Your task to perform on an android device: Clear the shopping cart on costco.com. Search for logitech g903 on costco.com, select the first entry, and add it to the cart. Image 0: 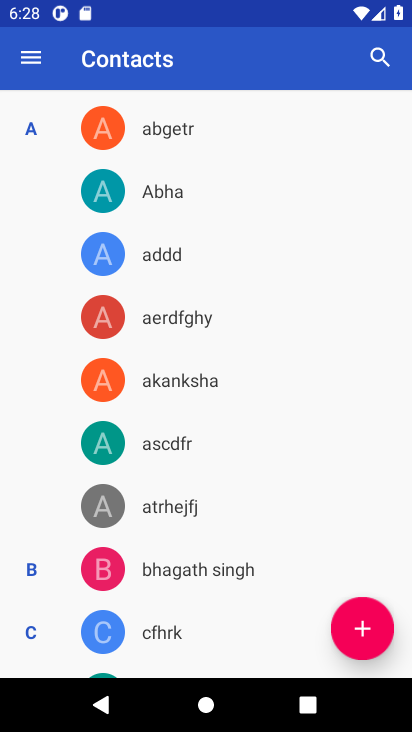
Step 0: press home button
Your task to perform on an android device: Clear the shopping cart on costco.com. Search for logitech g903 on costco.com, select the first entry, and add it to the cart. Image 1: 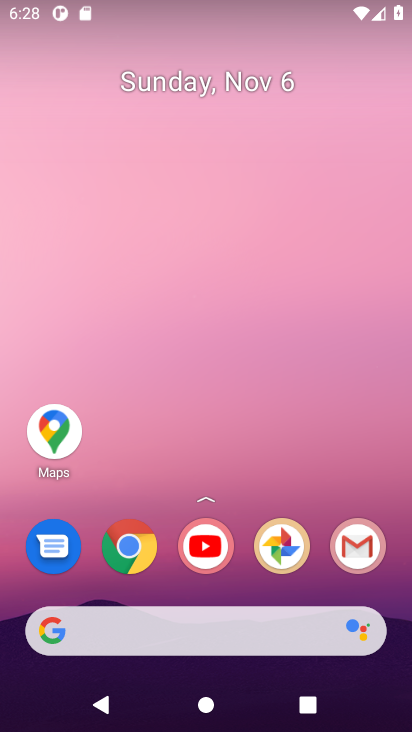
Step 1: click (126, 546)
Your task to perform on an android device: Clear the shopping cart on costco.com. Search for logitech g903 on costco.com, select the first entry, and add it to the cart. Image 2: 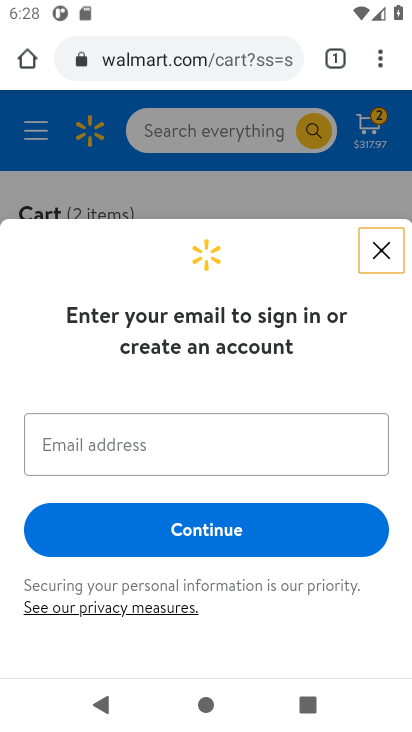
Step 2: click (176, 55)
Your task to perform on an android device: Clear the shopping cart on costco.com. Search for logitech g903 on costco.com, select the first entry, and add it to the cart. Image 3: 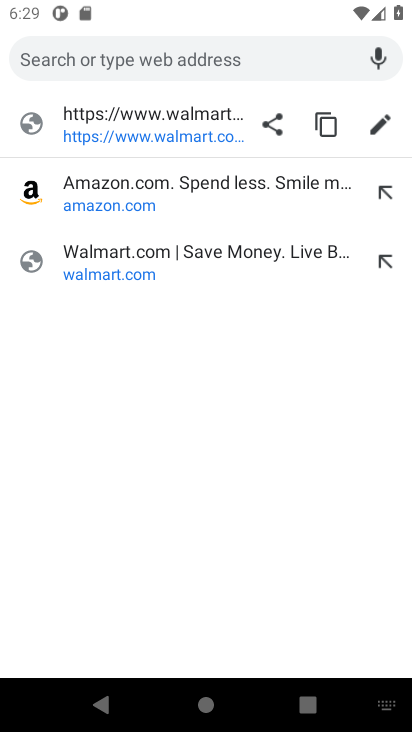
Step 3: type "costco.com"
Your task to perform on an android device: Clear the shopping cart on costco.com. Search for logitech g903 on costco.com, select the first entry, and add it to the cart. Image 4: 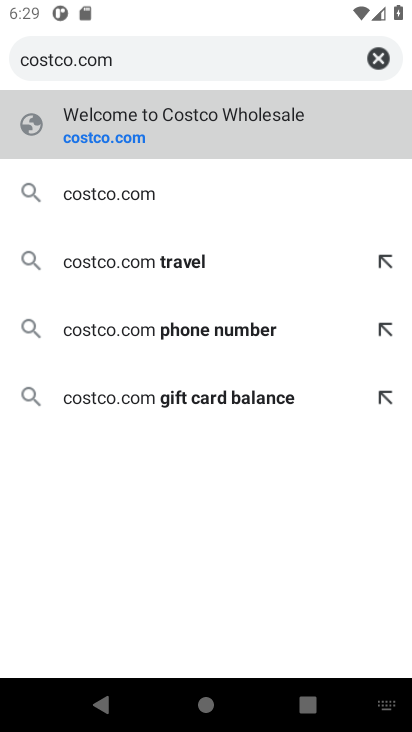
Step 4: click (123, 135)
Your task to perform on an android device: Clear the shopping cart on costco.com. Search for logitech g903 on costco.com, select the first entry, and add it to the cart. Image 5: 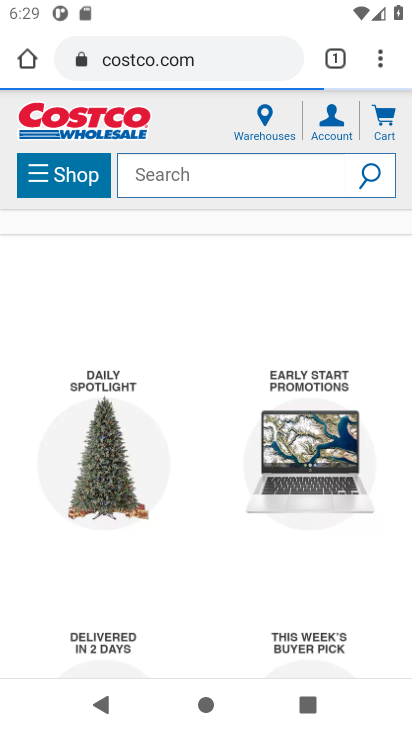
Step 5: click (385, 119)
Your task to perform on an android device: Clear the shopping cart on costco.com. Search for logitech g903 on costco.com, select the first entry, and add it to the cart. Image 6: 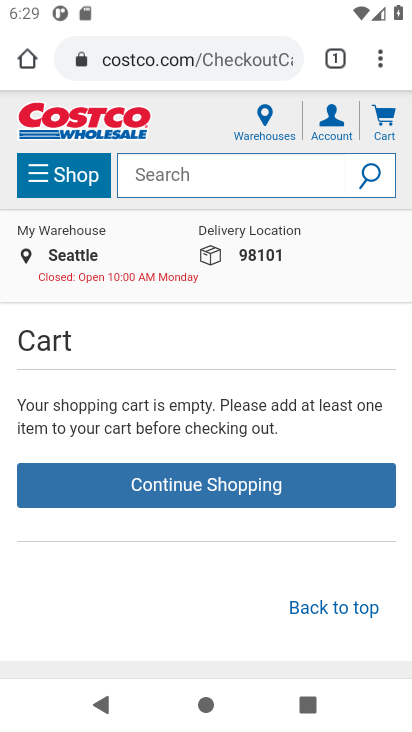
Step 6: click (151, 175)
Your task to perform on an android device: Clear the shopping cart on costco.com. Search for logitech g903 on costco.com, select the first entry, and add it to the cart. Image 7: 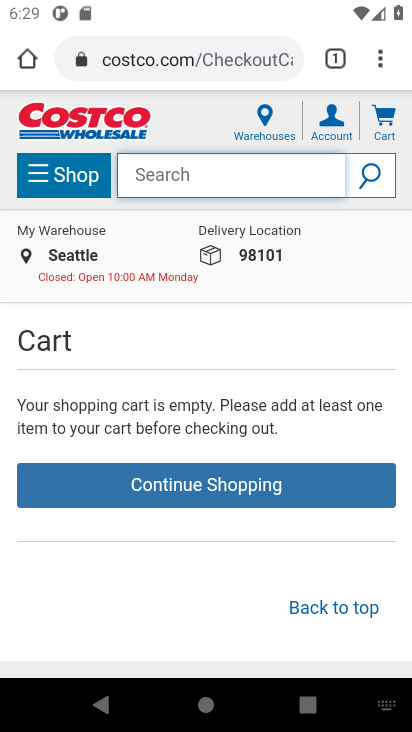
Step 7: type " logitech g903"
Your task to perform on an android device: Clear the shopping cart on costco.com. Search for logitech g903 on costco.com, select the first entry, and add it to the cart. Image 8: 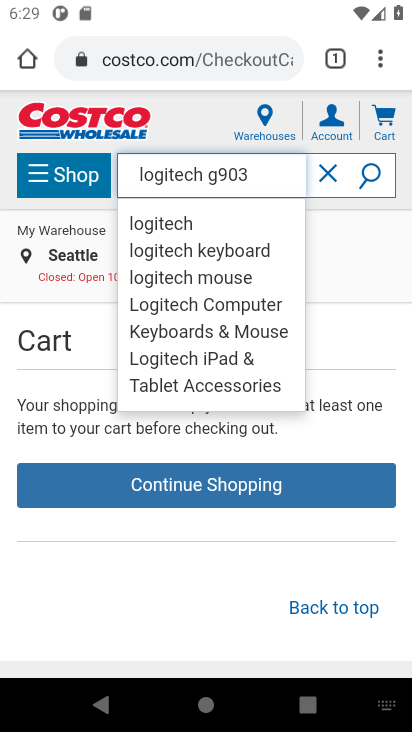
Step 8: click (369, 178)
Your task to perform on an android device: Clear the shopping cart on costco.com. Search for logitech g903 on costco.com, select the first entry, and add it to the cart. Image 9: 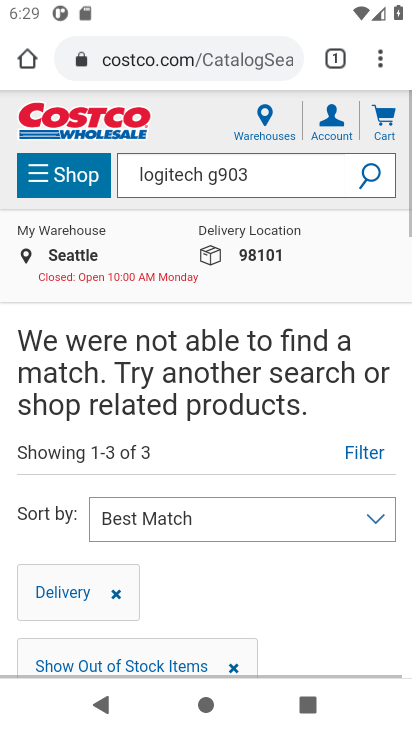
Step 9: task complete